Your task to perform on an android device: toggle javascript in the chrome app Image 0: 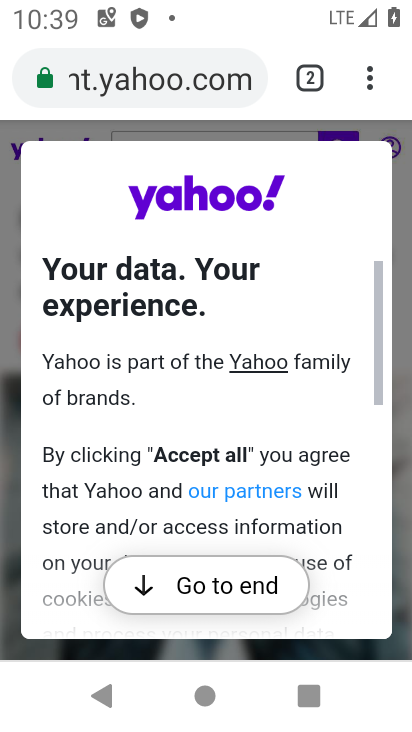
Step 0: press home button
Your task to perform on an android device: toggle javascript in the chrome app Image 1: 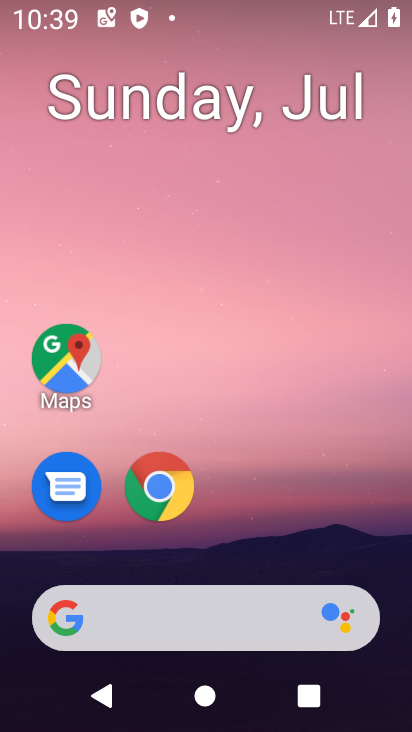
Step 1: drag from (369, 524) to (374, 71)
Your task to perform on an android device: toggle javascript in the chrome app Image 2: 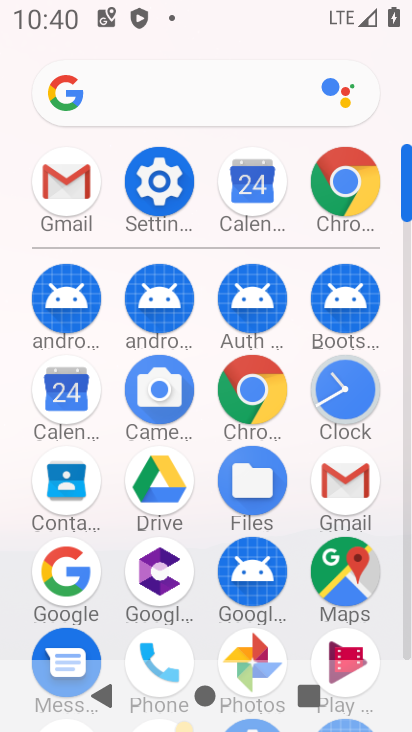
Step 2: click (345, 187)
Your task to perform on an android device: toggle javascript in the chrome app Image 3: 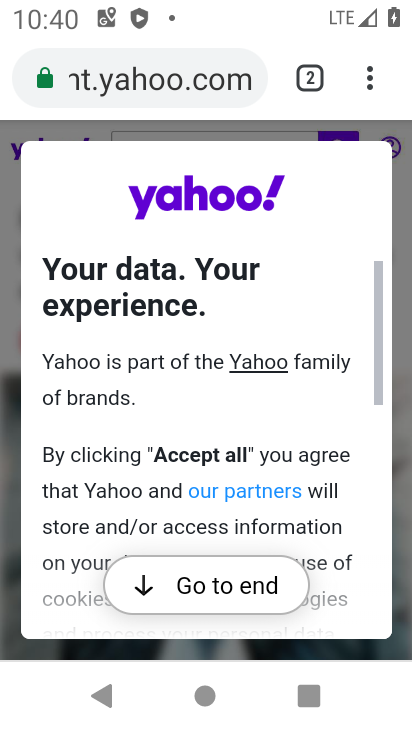
Step 3: click (370, 83)
Your task to perform on an android device: toggle javascript in the chrome app Image 4: 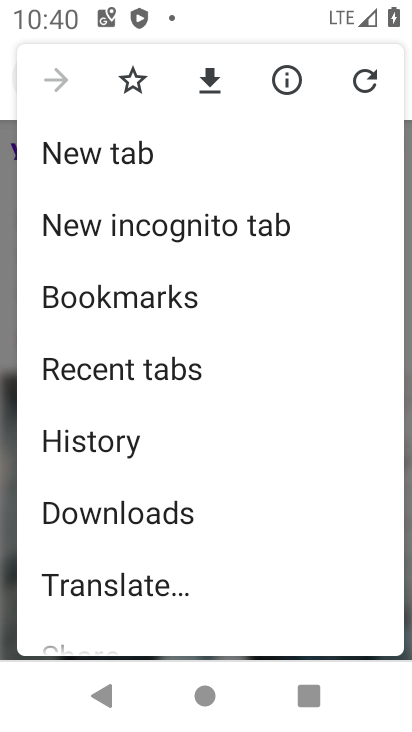
Step 4: drag from (287, 539) to (310, 430)
Your task to perform on an android device: toggle javascript in the chrome app Image 5: 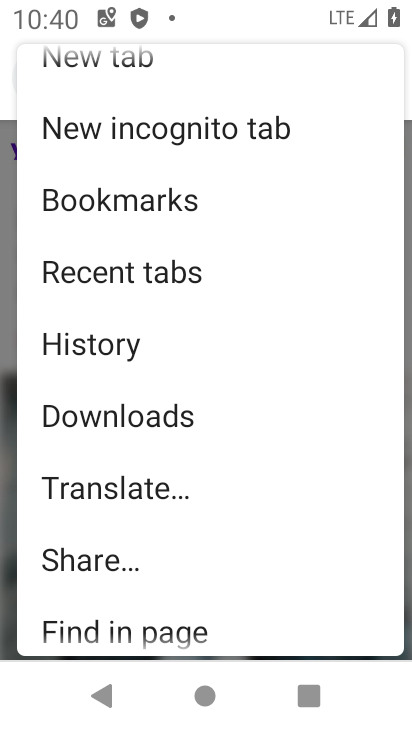
Step 5: drag from (322, 467) to (309, 302)
Your task to perform on an android device: toggle javascript in the chrome app Image 6: 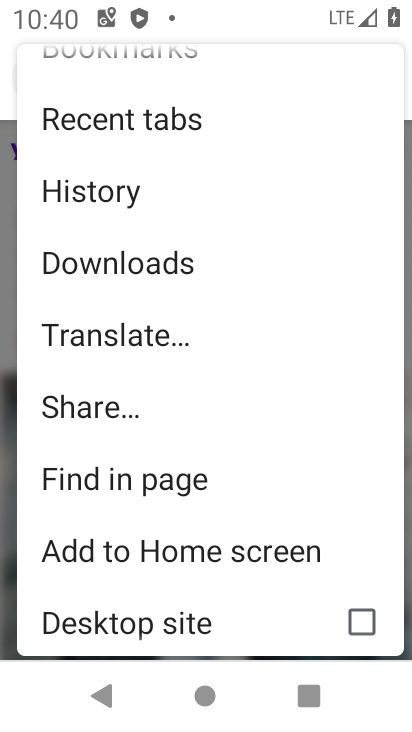
Step 6: drag from (312, 475) to (305, 281)
Your task to perform on an android device: toggle javascript in the chrome app Image 7: 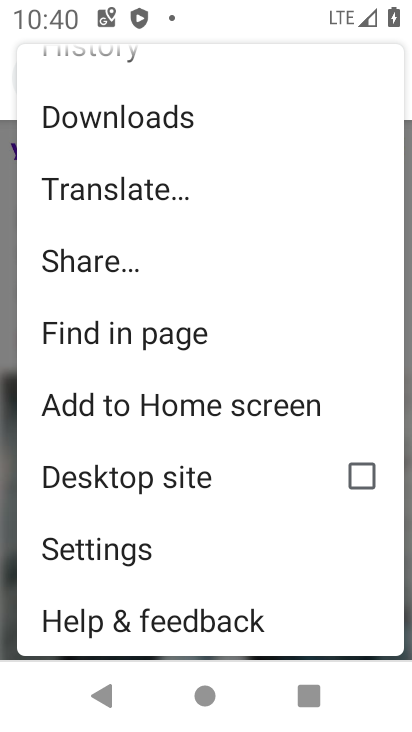
Step 7: drag from (309, 550) to (312, 350)
Your task to perform on an android device: toggle javascript in the chrome app Image 8: 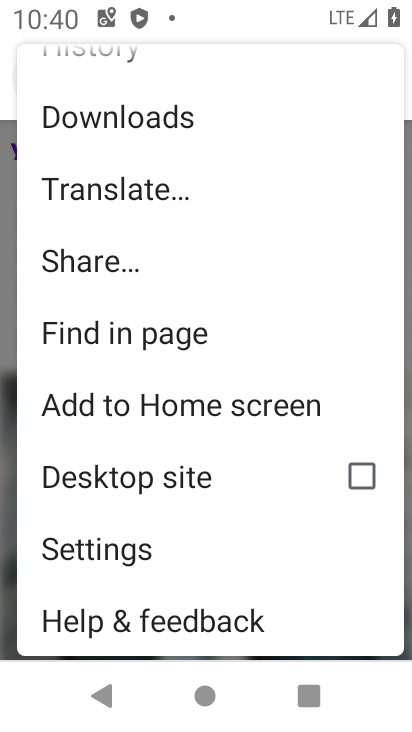
Step 8: click (174, 561)
Your task to perform on an android device: toggle javascript in the chrome app Image 9: 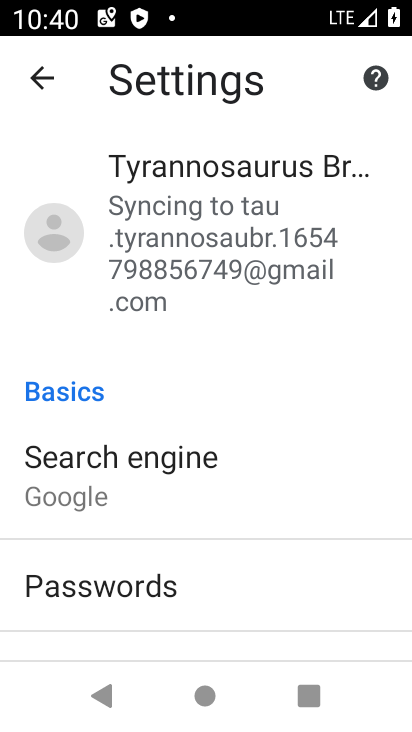
Step 9: drag from (298, 506) to (310, 321)
Your task to perform on an android device: toggle javascript in the chrome app Image 10: 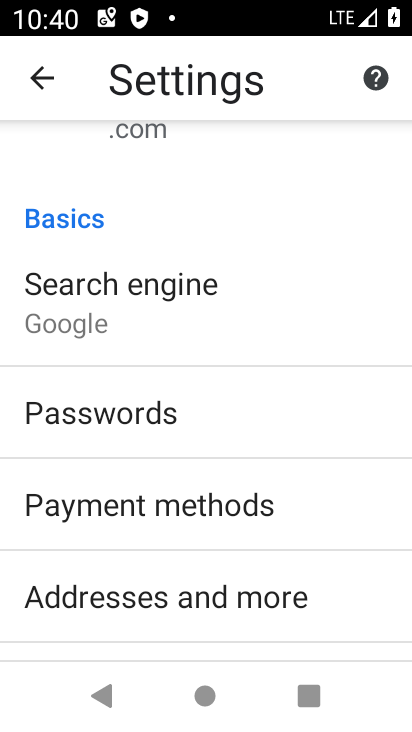
Step 10: drag from (332, 515) to (335, 397)
Your task to perform on an android device: toggle javascript in the chrome app Image 11: 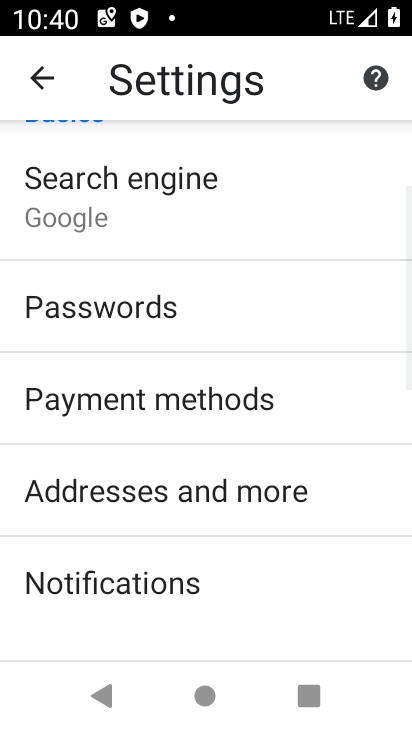
Step 11: drag from (343, 575) to (337, 339)
Your task to perform on an android device: toggle javascript in the chrome app Image 12: 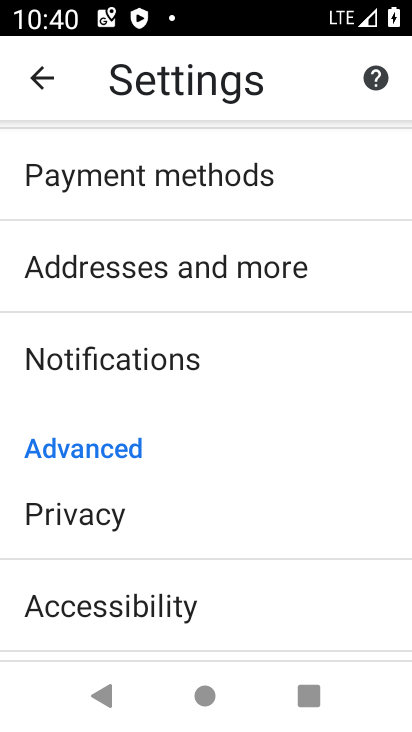
Step 12: drag from (335, 517) to (331, 367)
Your task to perform on an android device: toggle javascript in the chrome app Image 13: 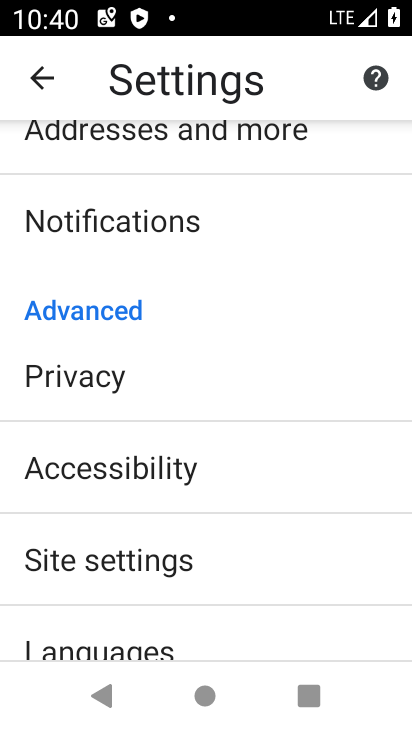
Step 13: drag from (308, 501) to (322, 312)
Your task to perform on an android device: toggle javascript in the chrome app Image 14: 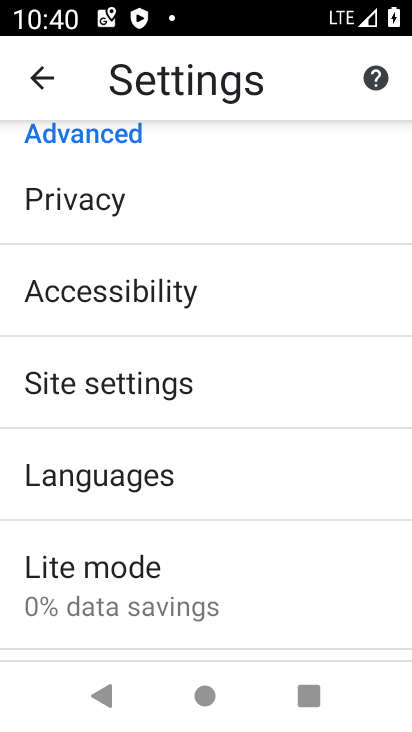
Step 14: drag from (315, 446) to (328, 278)
Your task to perform on an android device: toggle javascript in the chrome app Image 15: 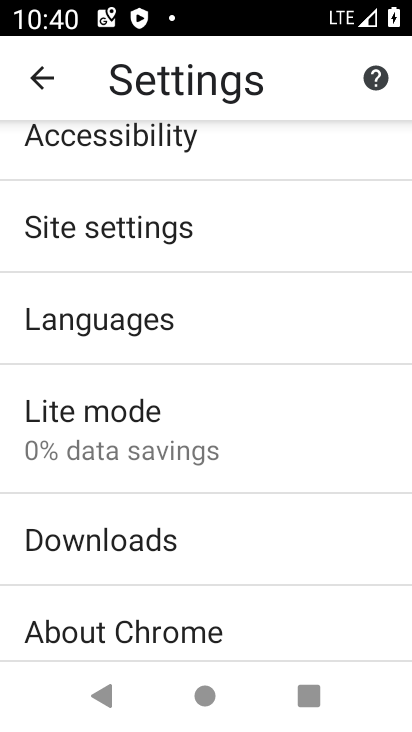
Step 15: drag from (308, 424) to (311, 322)
Your task to perform on an android device: toggle javascript in the chrome app Image 16: 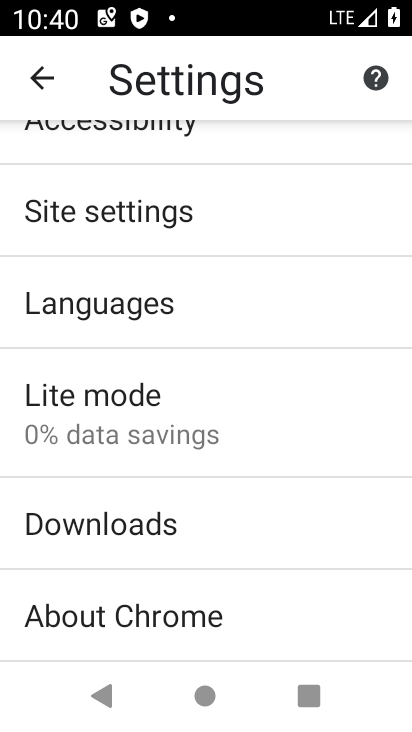
Step 16: drag from (313, 443) to (315, 343)
Your task to perform on an android device: toggle javascript in the chrome app Image 17: 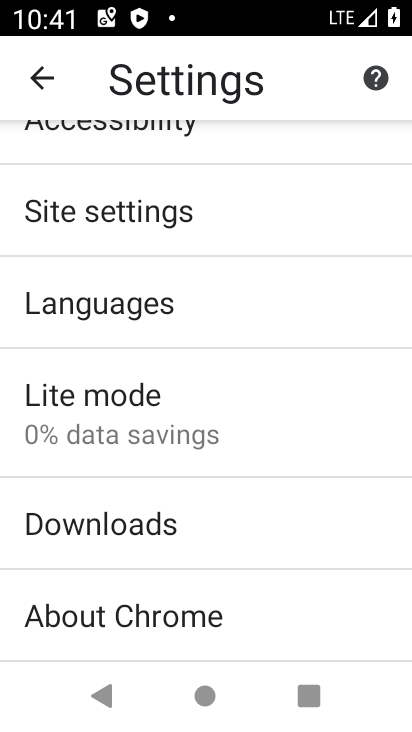
Step 17: click (273, 215)
Your task to perform on an android device: toggle javascript in the chrome app Image 18: 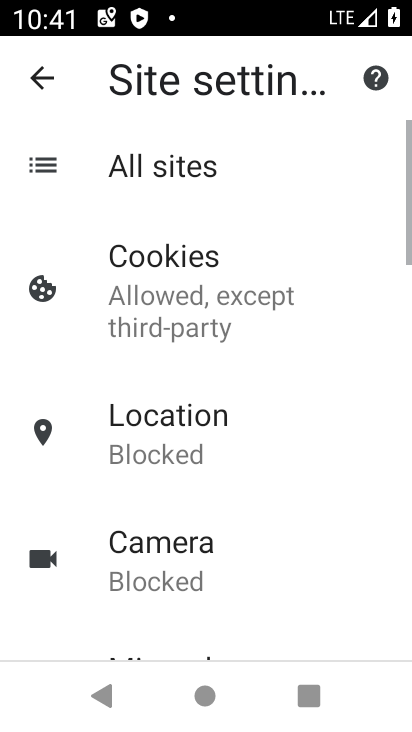
Step 18: drag from (294, 507) to (299, 331)
Your task to perform on an android device: toggle javascript in the chrome app Image 19: 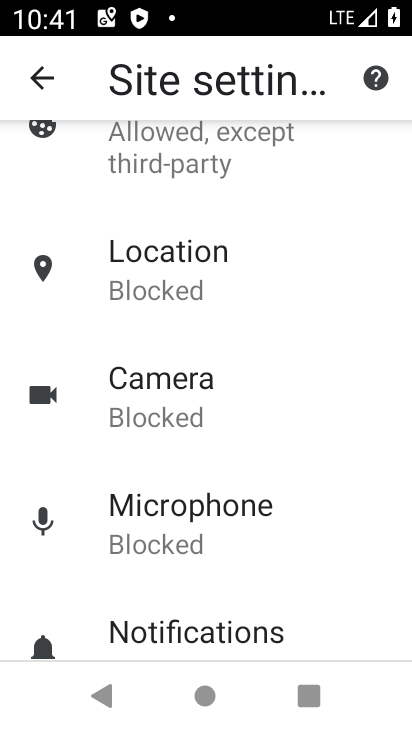
Step 19: drag from (329, 537) to (330, 387)
Your task to perform on an android device: toggle javascript in the chrome app Image 20: 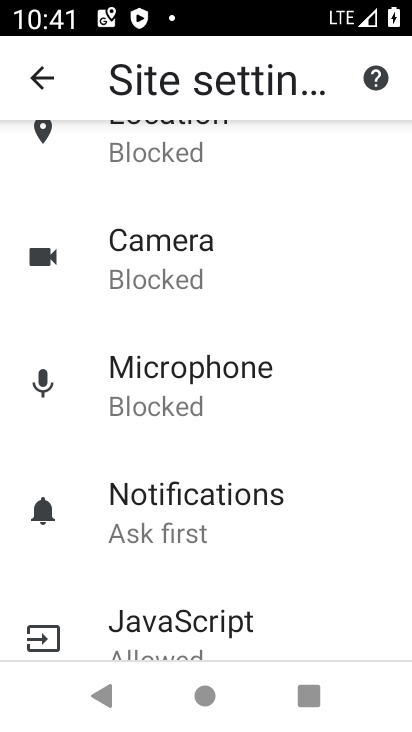
Step 20: drag from (335, 544) to (337, 398)
Your task to perform on an android device: toggle javascript in the chrome app Image 21: 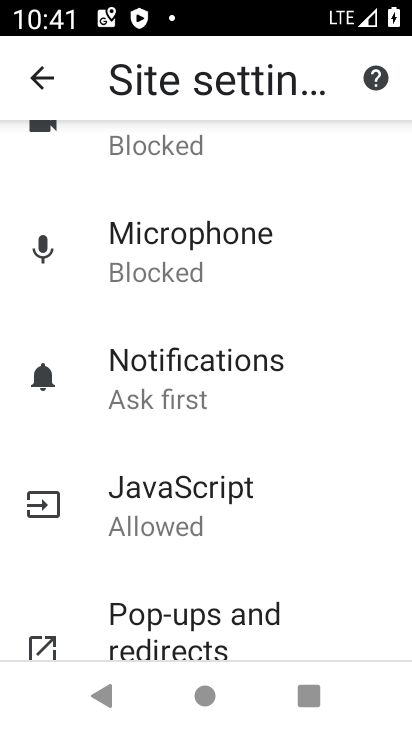
Step 21: click (260, 538)
Your task to perform on an android device: toggle javascript in the chrome app Image 22: 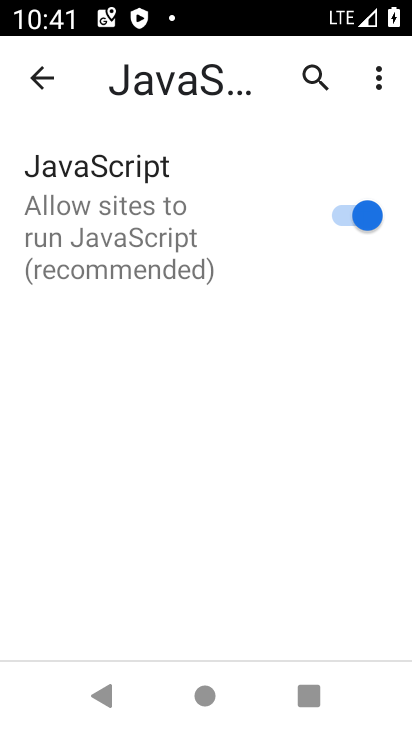
Step 22: click (360, 222)
Your task to perform on an android device: toggle javascript in the chrome app Image 23: 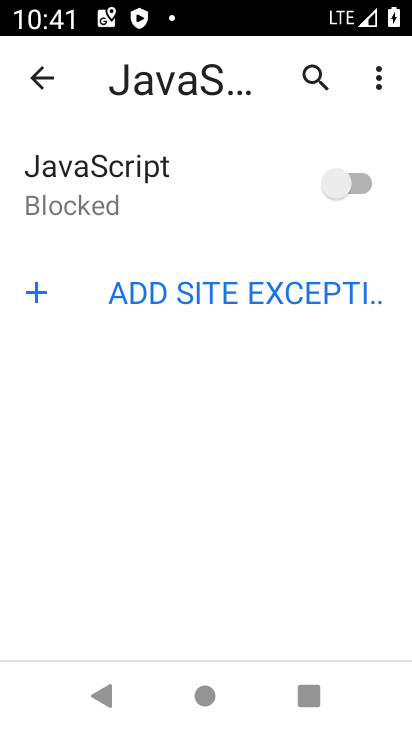
Step 23: task complete